Your task to perform on an android device: open a bookmark in the chrome app Image 0: 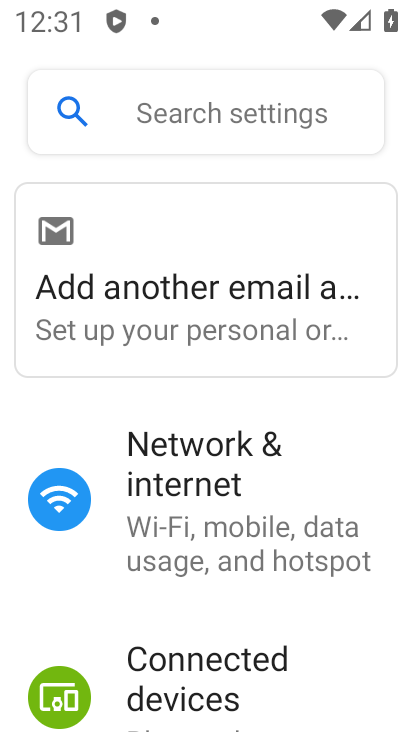
Step 0: press home button
Your task to perform on an android device: open a bookmark in the chrome app Image 1: 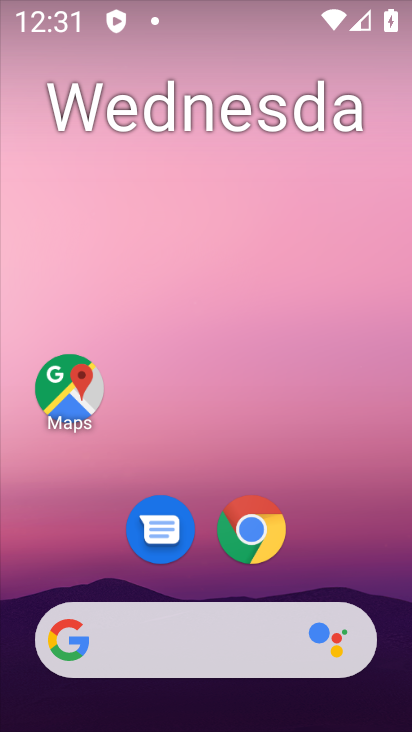
Step 1: click (255, 559)
Your task to perform on an android device: open a bookmark in the chrome app Image 2: 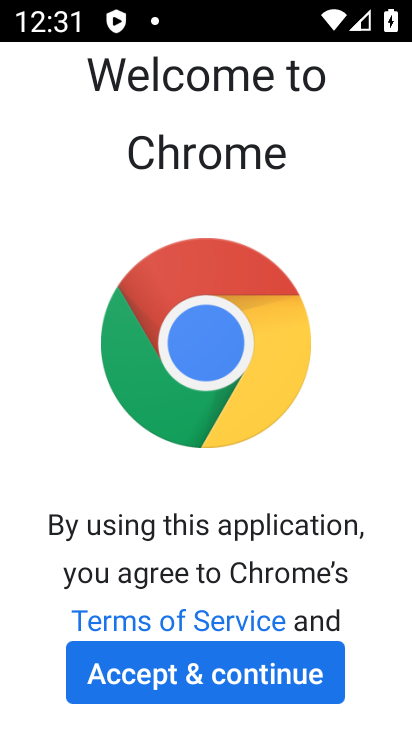
Step 2: click (247, 685)
Your task to perform on an android device: open a bookmark in the chrome app Image 3: 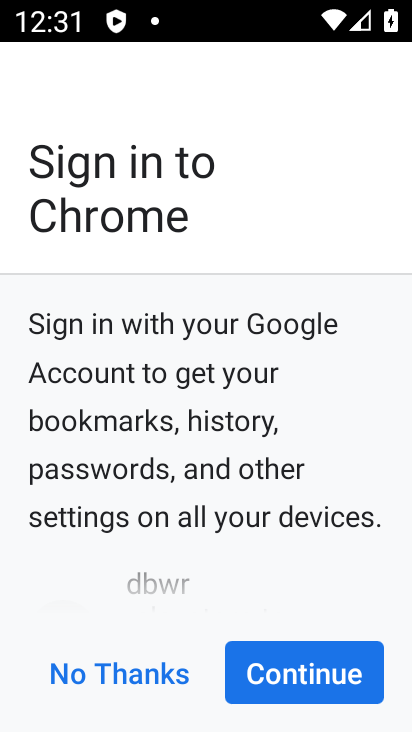
Step 3: click (301, 668)
Your task to perform on an android device: open a bookmark in the chrome app Image 4: 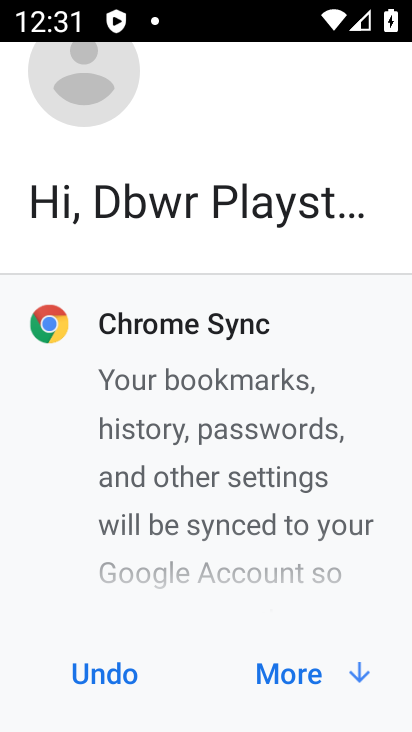
Step 4: click (270, 674)
Your task to perform on an android device: open a bookmark in the chrome app Image 5: 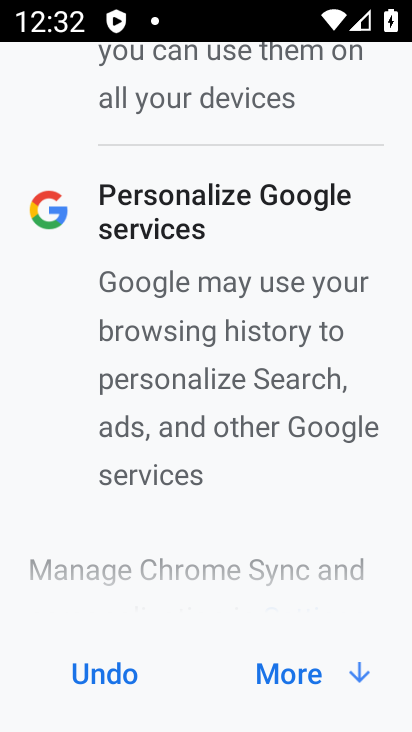
Step 5: click (295, 661)
Your task to perform on an android device: open a bookmark in the chrome app Image 6: 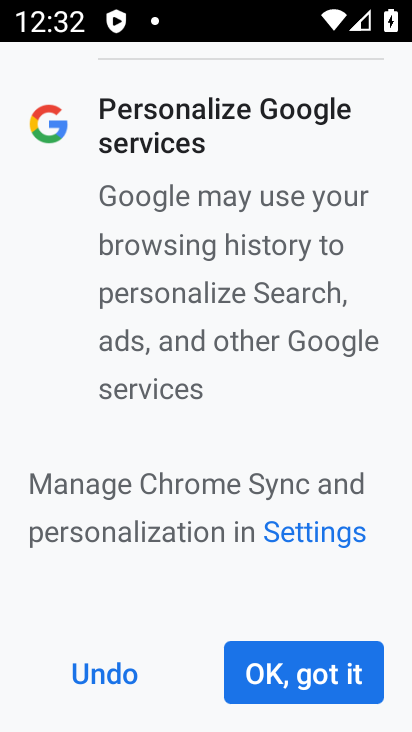
Step 6: click (295, 661)
Your task to perform on an android device: open a bookmark in the chrome app Image 7: 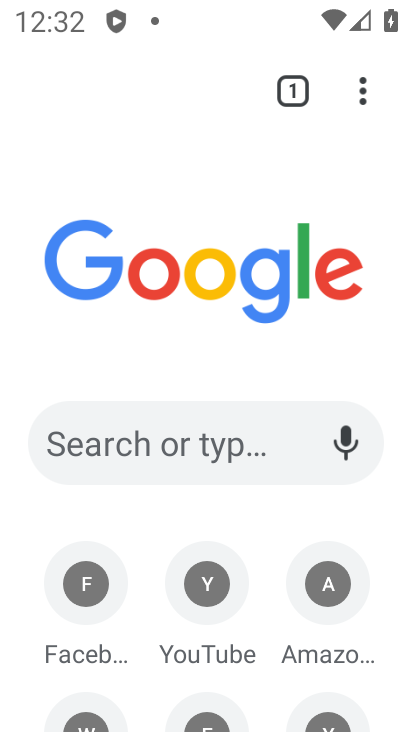
Step 7: click (362, 98)
Your task to perform on an android device: open a bookmark in the chrome app Image 8: 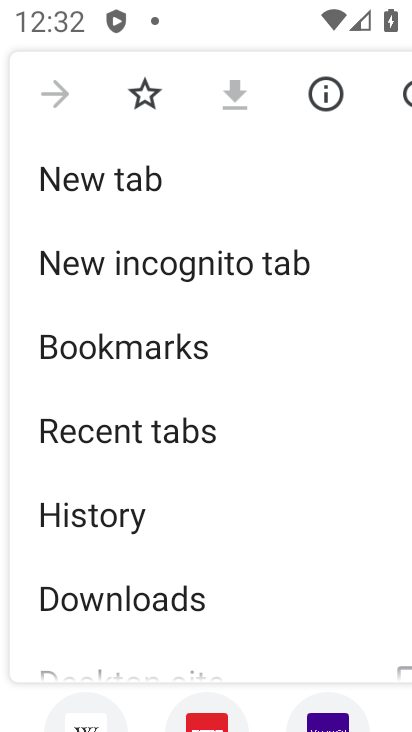
Step 8: click (108, 344)
Your task to perform on an android device: open a bookmark in the chrome app Image 9: 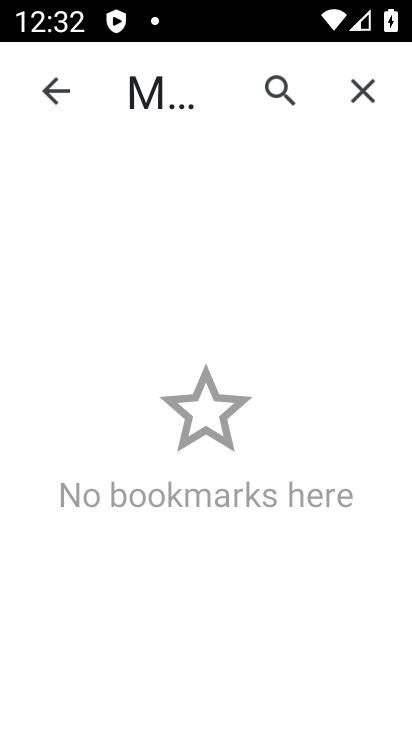
Step 9: task complete